Your task to perform on an android device: star an email in the gmail app Image 0: 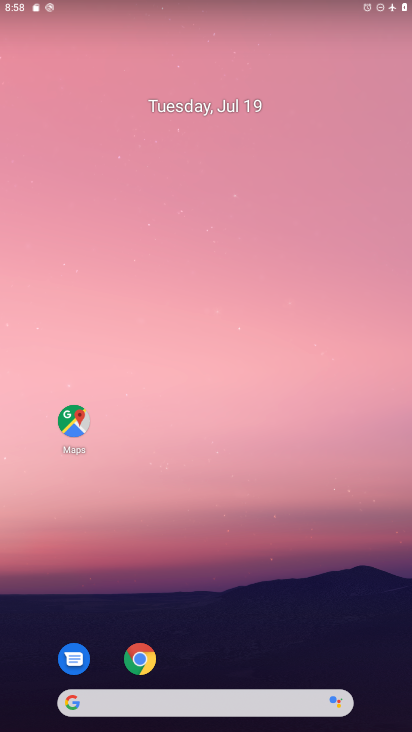
Step 0: drag from (268, 654) to (266, 287)
Your task to perform on an android device: star an email in the gmail app Image 1: 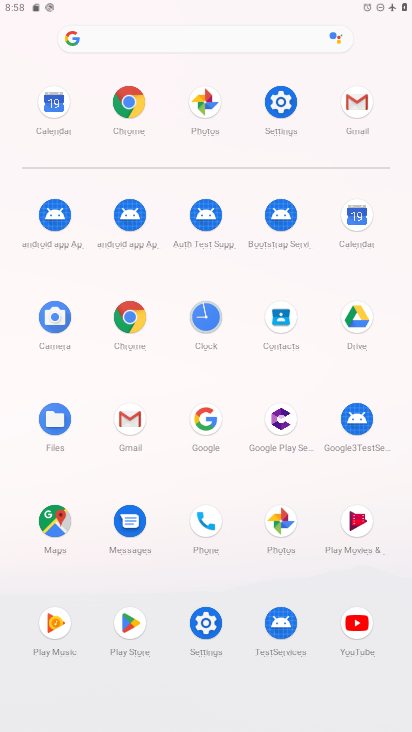
Step 1: click (361, 94)
Your task to perform on an android device: star an email in the gmail app Image 2: 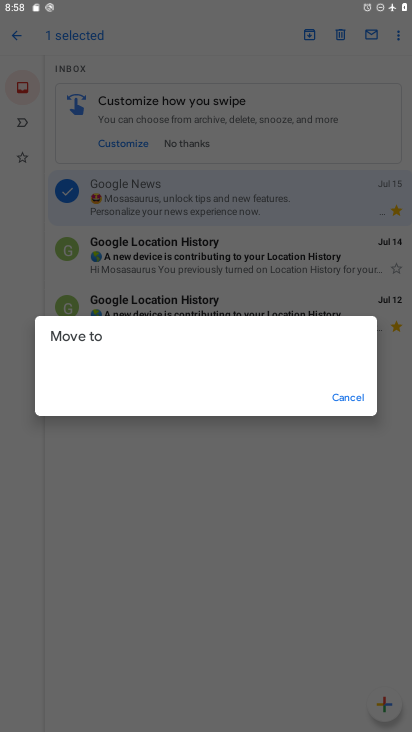
Step 2: click (336, 395)
Your task to perform on an android device: star an email in the gmail app Image 3: 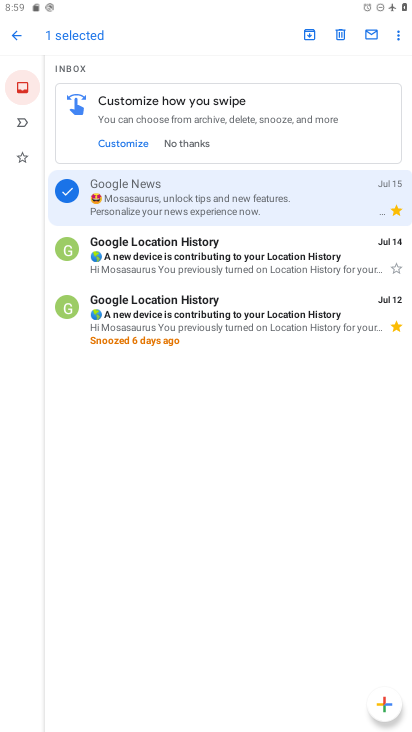
Step 3: task complete